Your task to perform on an android device: Go to eBay Image 0: 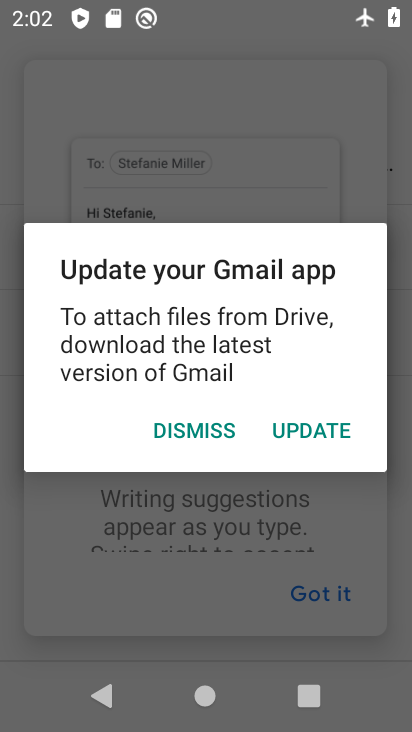
Step 0: click (187, 431)
Your task to perform on an android device: Go to eBay Image 1: 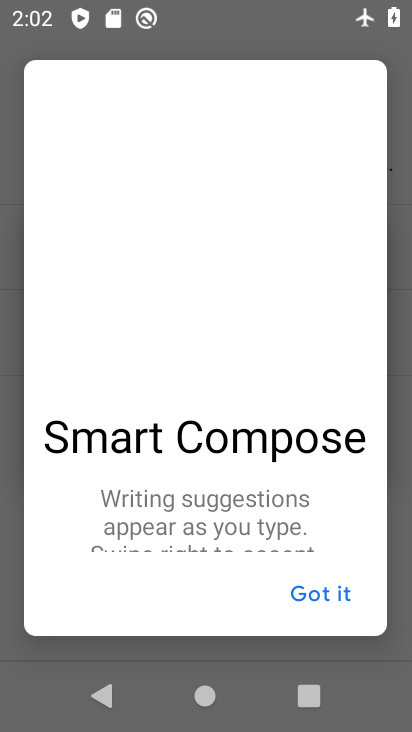
Step 1: click (303, 584)
Your task to perform on an android device: Go to eBay Image 2: 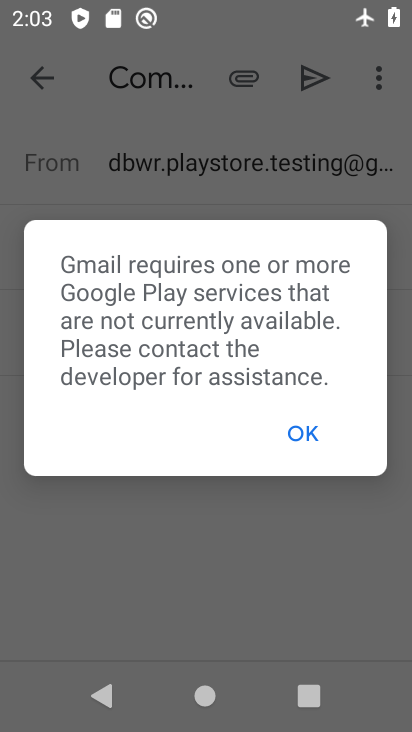
Step 2: click (303, 427)
Your task to perform on an android device: Go to eBay Image 3: 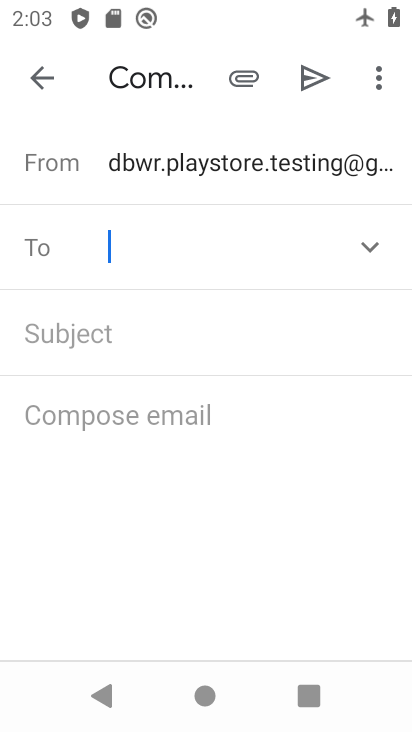
Step 3: click (41, 72)
Your task to perform on an android device: Go to eBay Image 4: 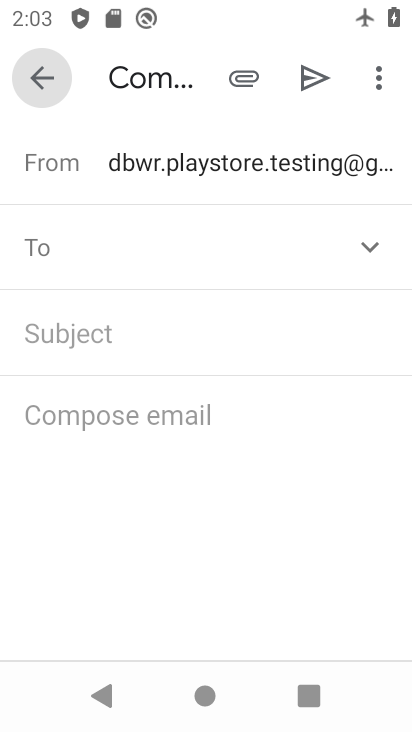
Step 4: click (41, 67)
Your task to perform on an android device: Go to eBay Image 5: 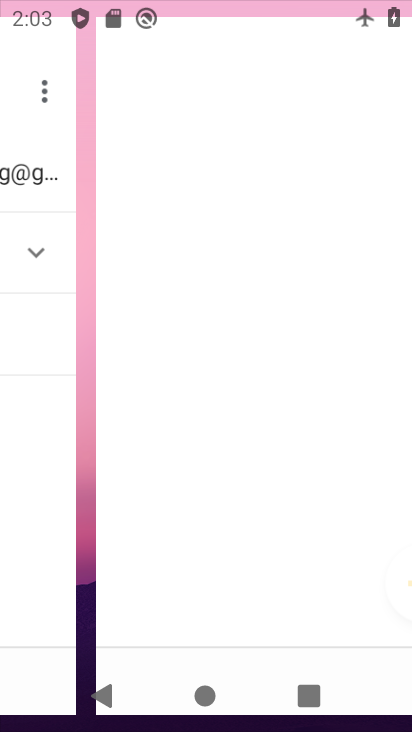
Step 5: click (41, 67)
Your task to perform on an android device: Go to eBay Image 6: 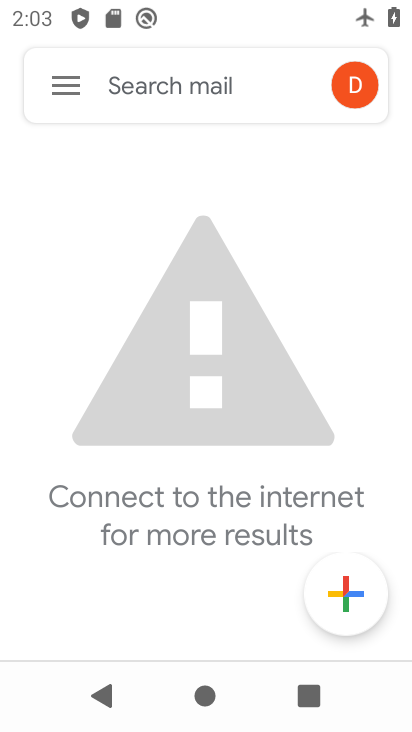
Step 6: click (46, 71)
Your task to perform on an android device: Go to eBay Image 7: 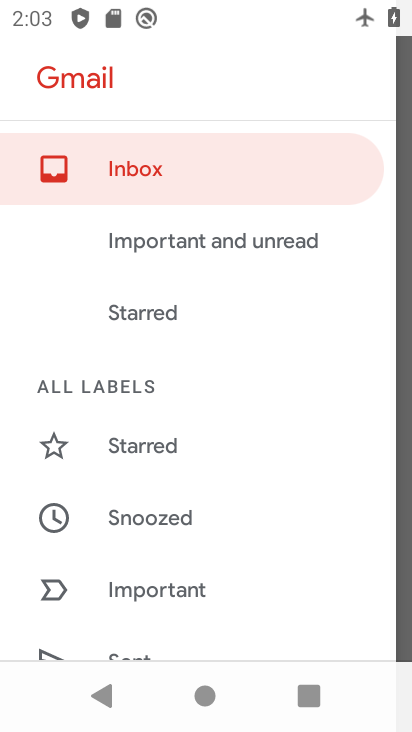
Step 7: press back button
Your task to perform on an android device: Go to eBay Image 8: 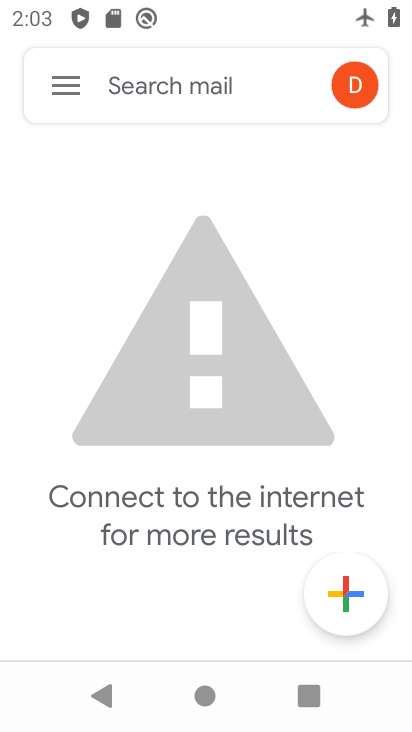
Step 8: press home button
Your task to perform on an android device: Go to eBay Image 9: 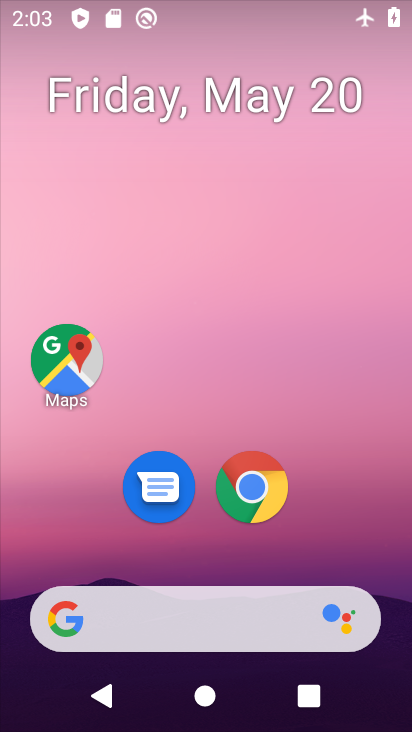
Step 9: drag from (256, 637) to (102, 87)
Your task to perform on an android device: Go to eBay Image 10: 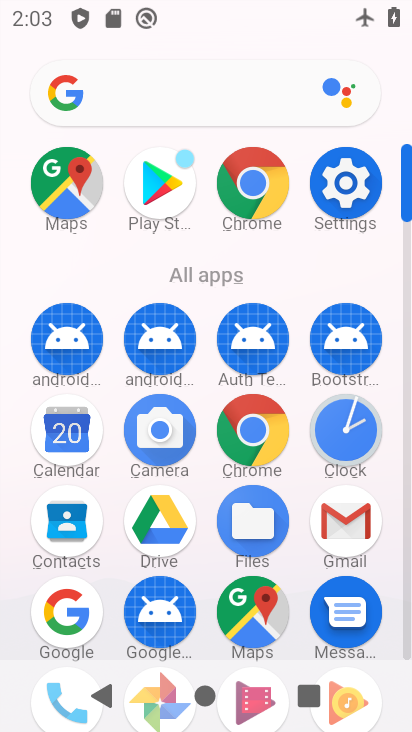
Step 10: click (243, 193)
Your task to perform on an android device: Go to eBay Image 11: 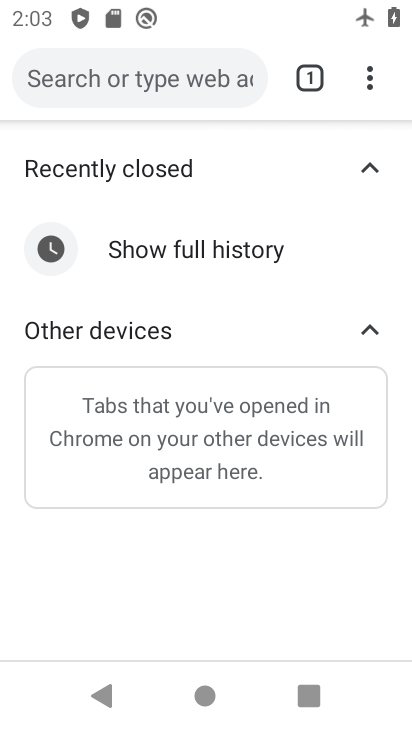
Step 11: drag from (369, 84) to (87, 152)
Your task to perform on an android device: Go to eBay Image 12: 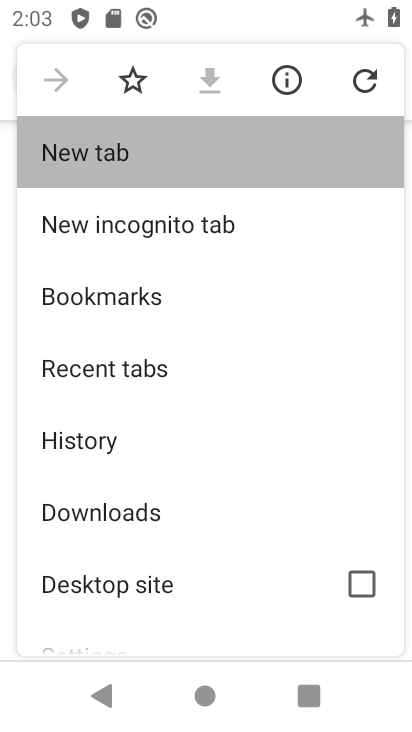
Step 12: click (88, 153)
Your task to perform on an android device: Go to eBay Image 13: 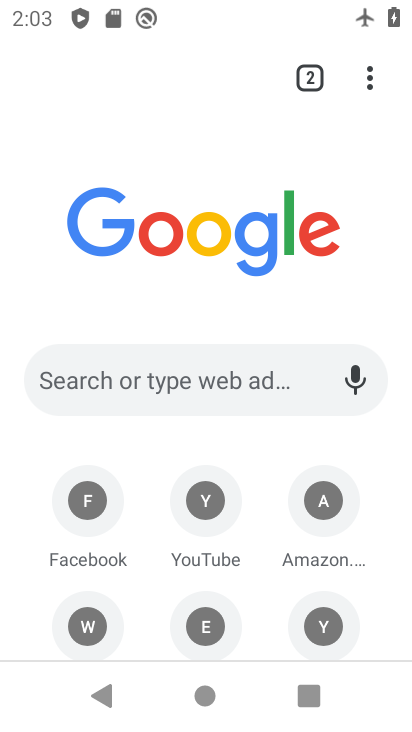
Step 13: click (118, 366)
Your task to perform on an android device: Go to eBay Image 14: 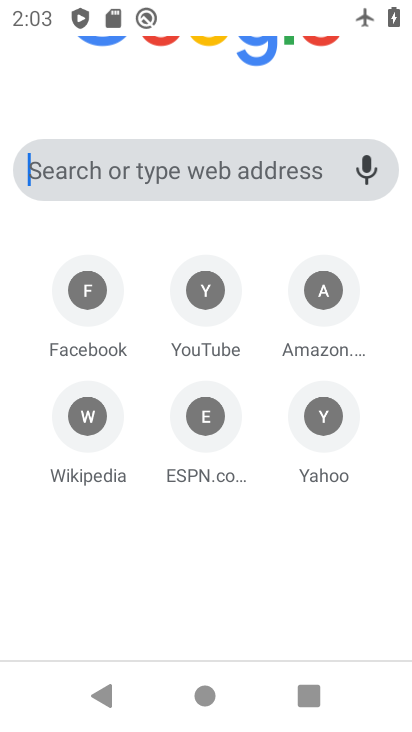
Step 14: click (105, 380)
Your task to perform on an android device: Go to eBay Image 15: 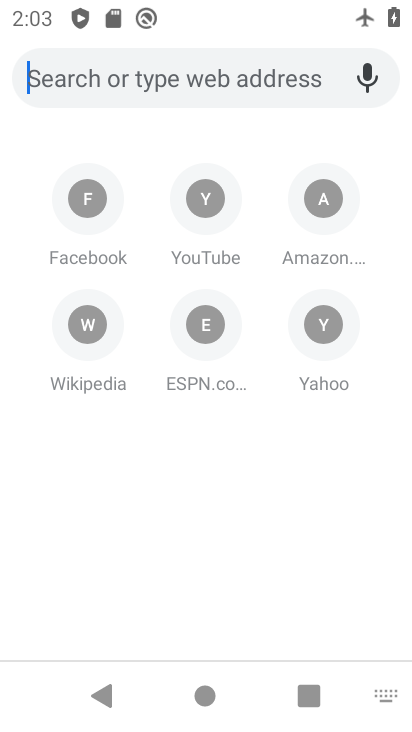
Step 15: click (105, 380)
Your task to perform on an android device: Go to eBay Image 16: 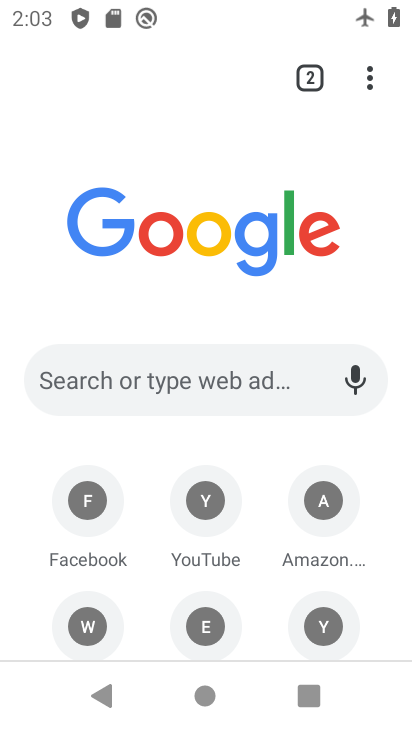
Step 16: click (55, 374)
Your task to perform on an android device: Go to eBay Image 17: 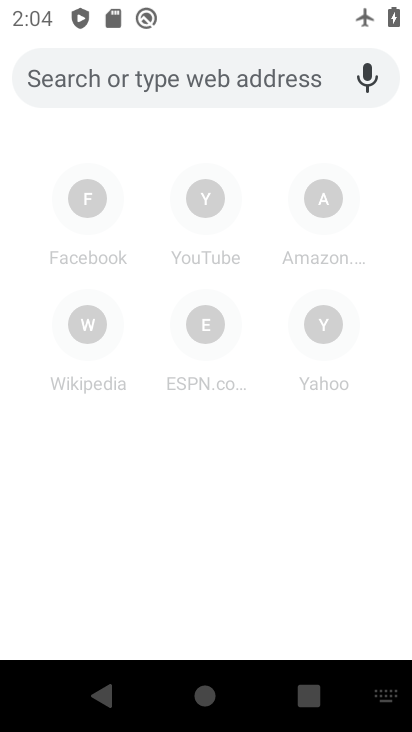
Step 17: type "ebay.com"
Your task to perform on an android device: Go to eBay Image 18: 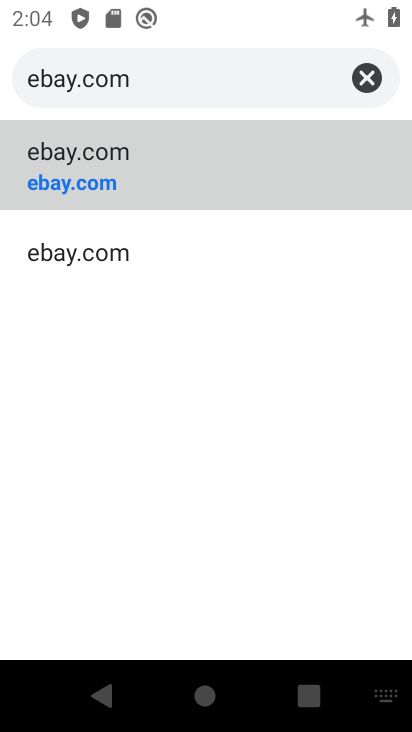
Step 18: click (76, 175)
Your task to perform on an android device: Go to eBay Image 19: 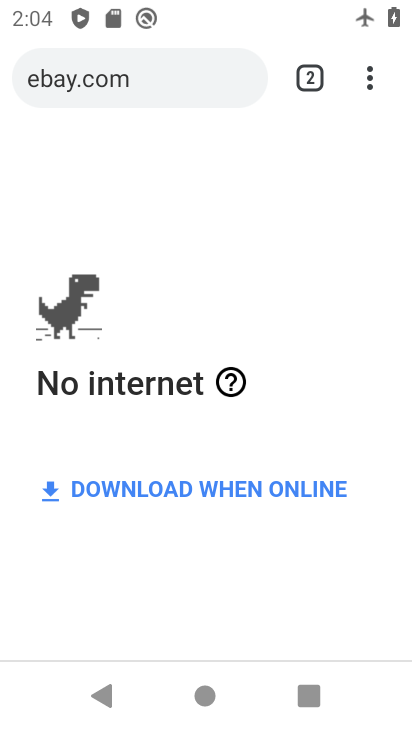
Step 19: task complete